Your task to perform on an android device: Open the calendar app, open the side menu, and click the "Day" option Image 0: 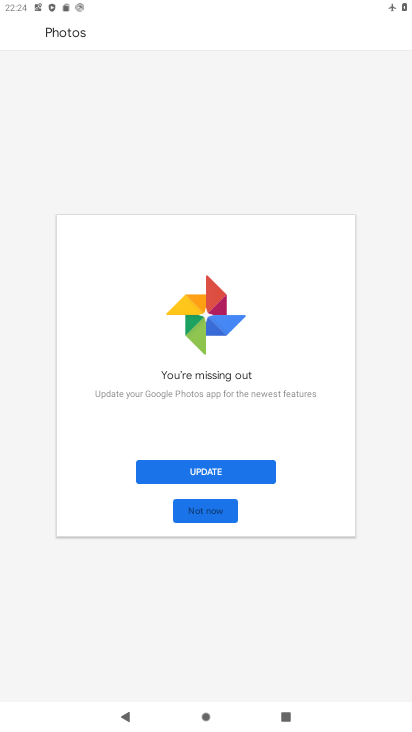
Step 0: press home button
Your task to perform on an android device: Open the calendar app, open the side menu, and click the "Day" option Image 1: 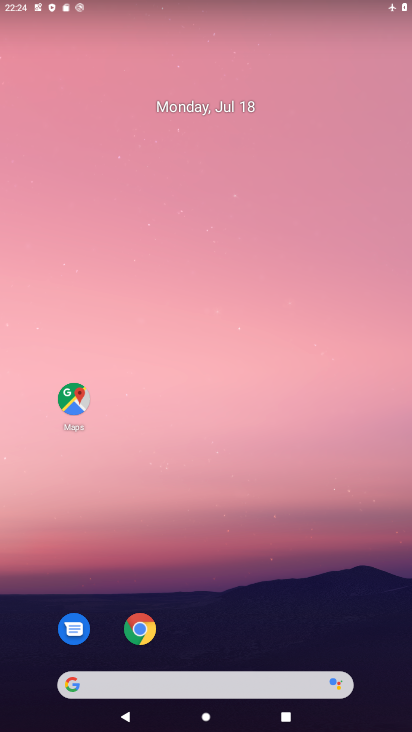
Step 1: drag from (290, 626) to (132, 121)
Your task to perform on an android device: Open the calendar app, open the side menu, and click the "Day" option Image 2: 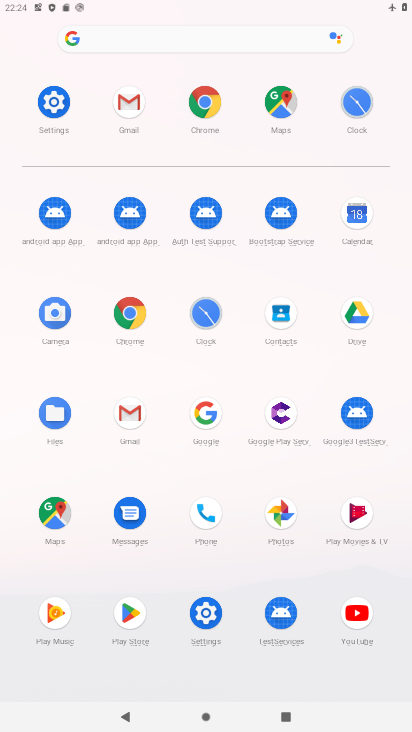
Step 2: click (349, 226)
Your task to perform on an android device: Open the calendar app, open the side menu, and click the "Day" option Image 3: 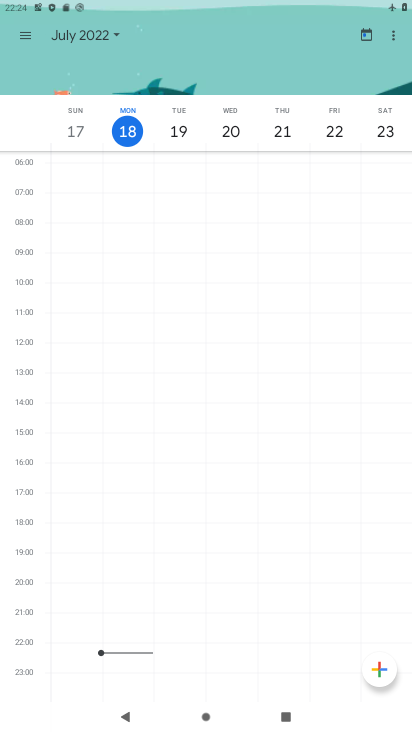
Step 3: click (18, 37)
Your task to perform on an android device: Open the calendar app, open the side menu, and click the "Day" option Image 4: 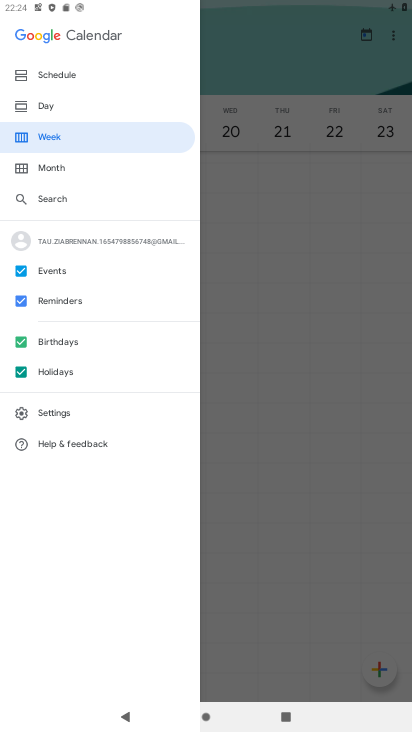
Step 4: click (56, 98)
Your task to perform on an android device: Open the calendar app, open the side menu, and click the "Day" option Image 5: 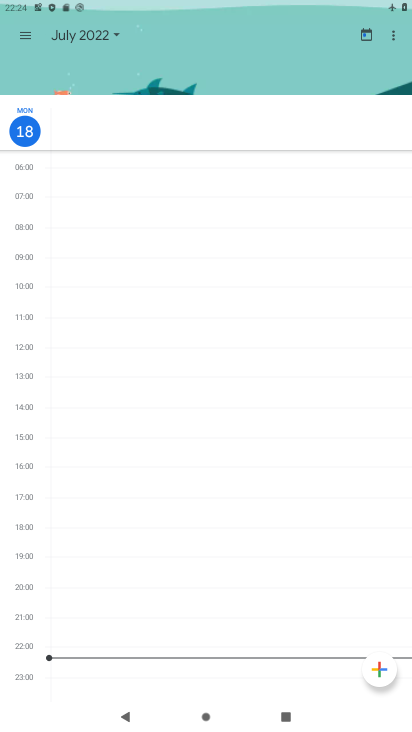
Step 5: task complete